Your task to perform on an android device: What's the weather today? Image 0: 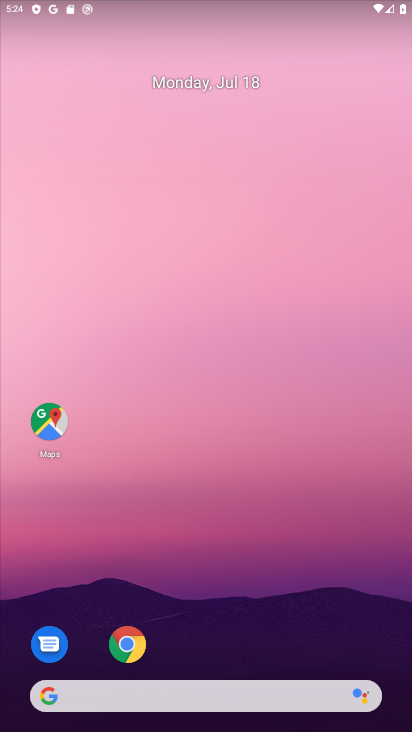
Step 0: press home button
Your task to perform on an android device: What's the weather today? Image 1: 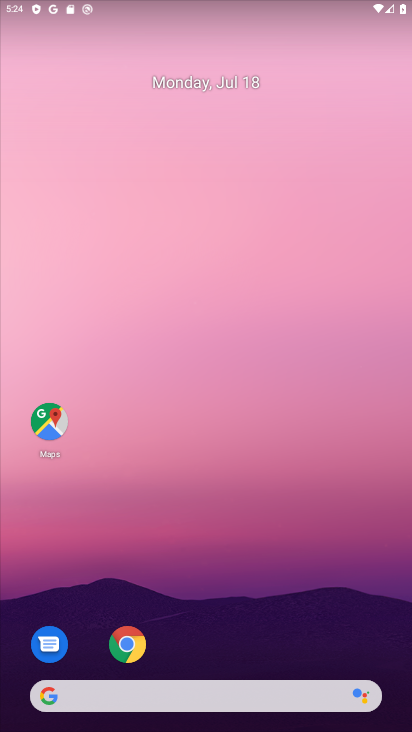
Step 1: click (37, 697)
Your task to perform on an android device: What's the weather today? Image 2: 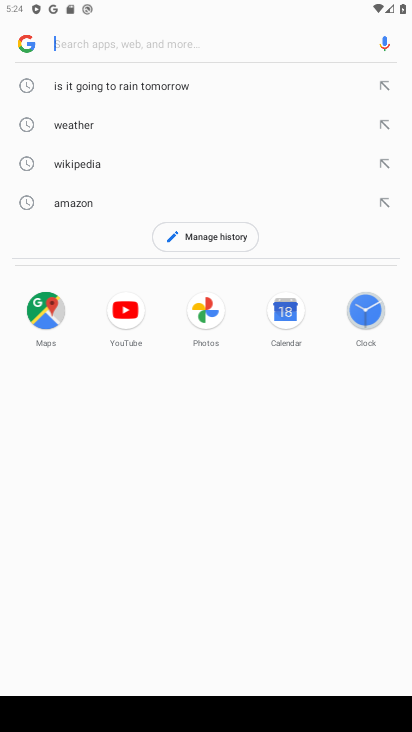
Step 2: type "What's the weather today"
Your task to perform on an android device: What's the weather today? Image 3: 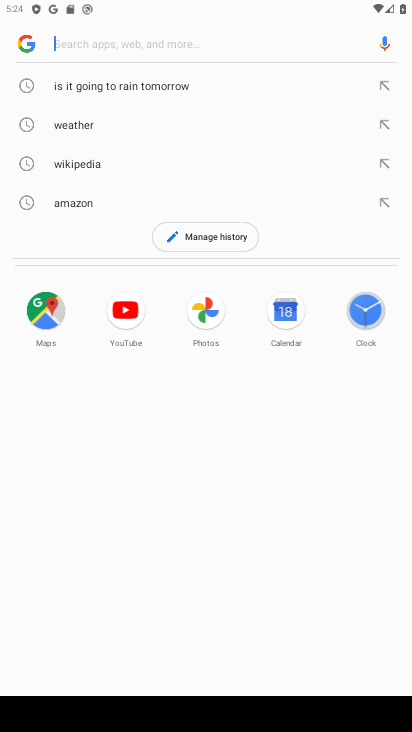
Step 3: click (127, 36)
Your task to perform on an android device: What's the weather today? Image 4: 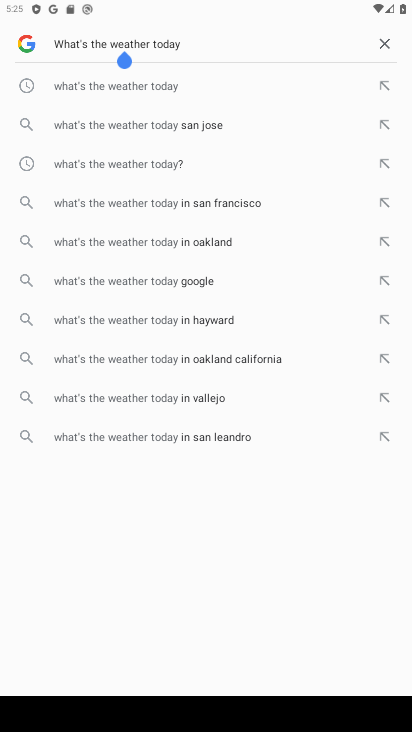
Step 4: press enter
Your task to perform on an android device: What's the weather today? Image 5: 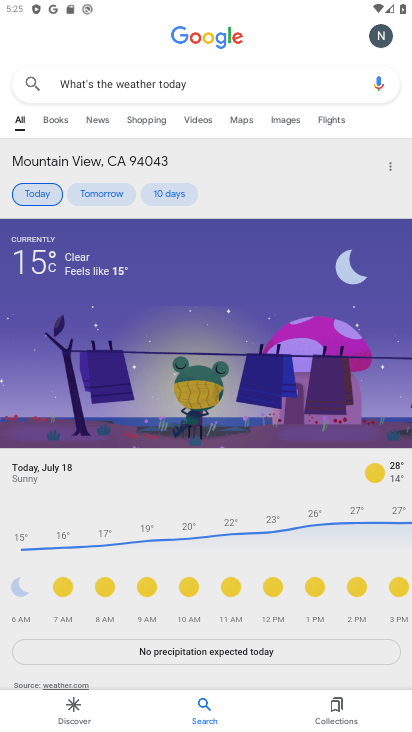
Step 5: task complete